Your task to perform on an android device: Search for sushi restaurants on Maps Image 0: 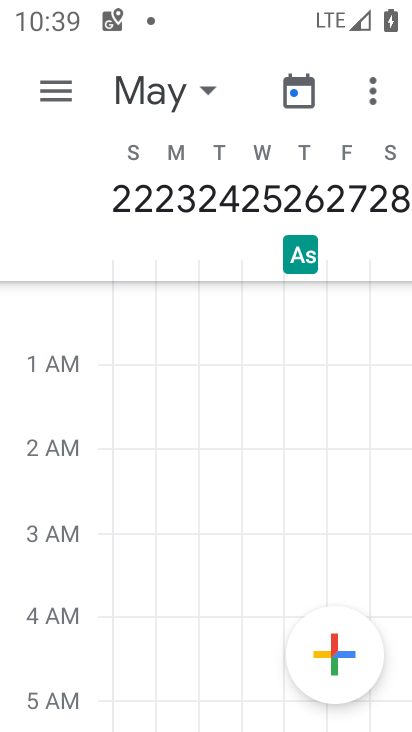
Step 0: press home button
Your task to perform on an android device: Search for sushi restaurants on Maps Image 1: 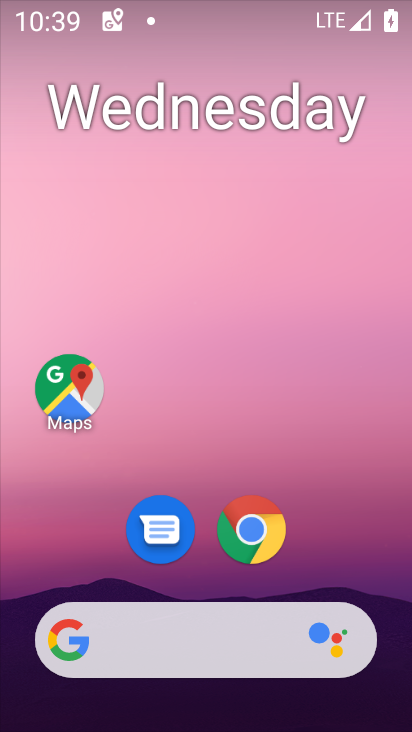
Step 1: click (66, 388)
Your task to perform on an android device: Search for sushi restaurants on Maps Image 2: 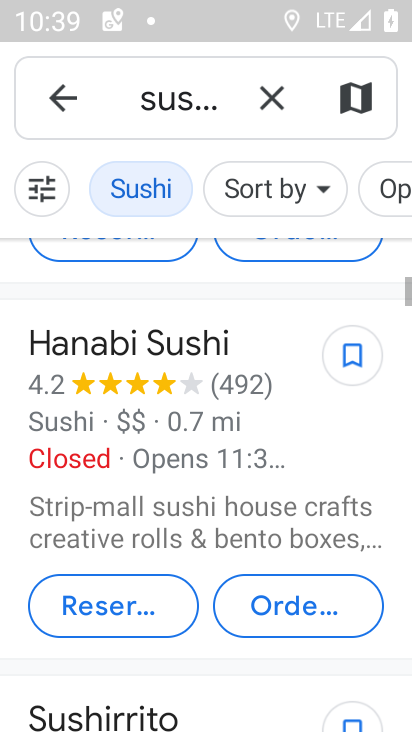
Step 2: task complete